Your task to perform on an android device: make emails show in primary in the gmail app Image 0: 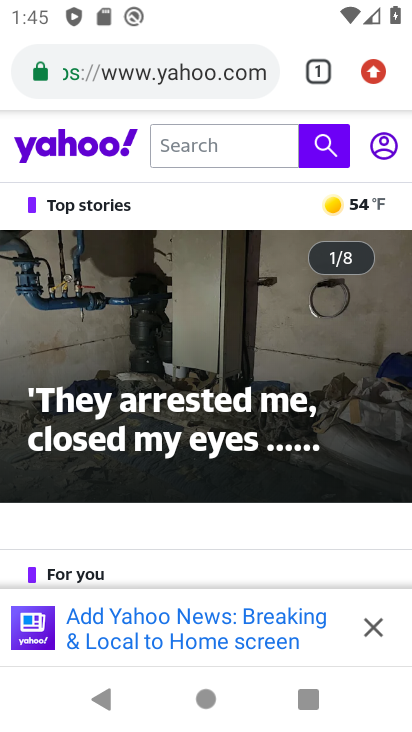
Step 0: press home button
Your task to perform on an android device: make emails show in primary in the gmail app Image 1: 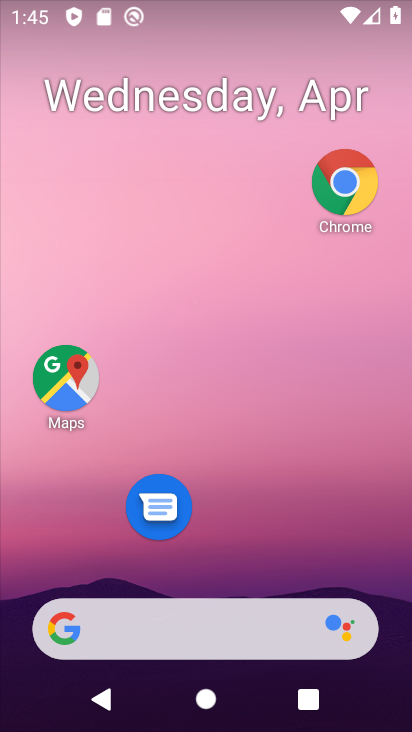
Step 1: drag from (252, 701) to (170, 38)
Your task to perform on an android device: make emails show in primary in the gmail app Image 2: 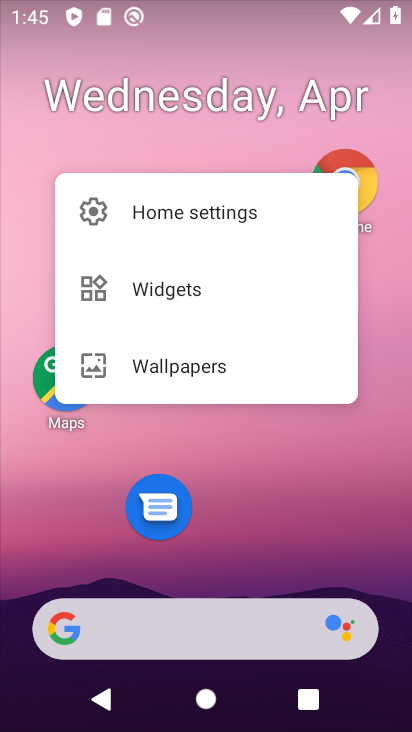
Step 2: drag from (256, 694) to (233, 8)
Your task to perform on an android device: make emails show in primary in the gmail app Image 3: 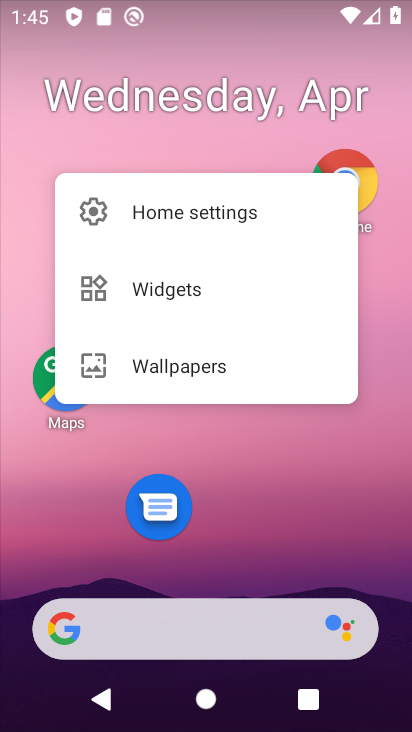
Step 3: drag from (265, 704) to (183, 61)
Your task to perform on an android device: make emails show in primary in the gmail app Image 4: 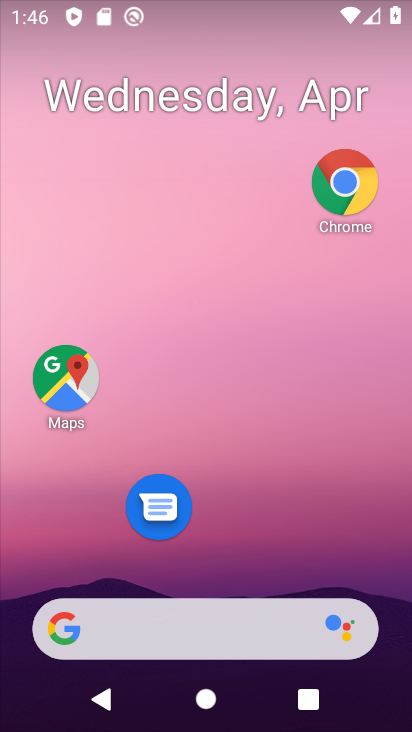
Step 4: drag from (230, 657) to (248, 0)
Your task to perform on an android device: make emails show in primary in the gmail app Image 5: 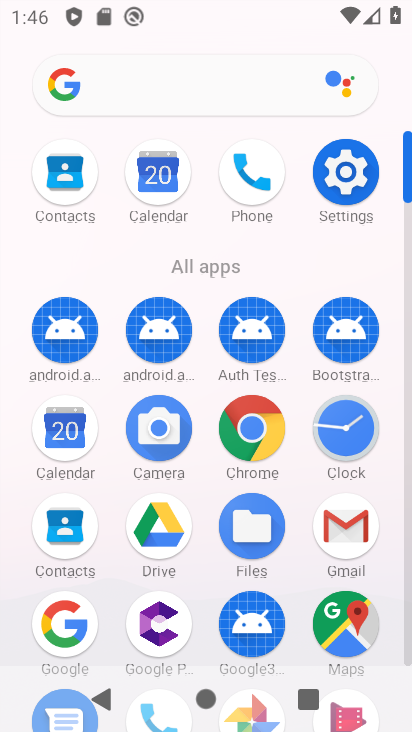
Step 5: click (327, 519)
Your task to perform on an android device: make emails show in primary in the gmail app Image 6: 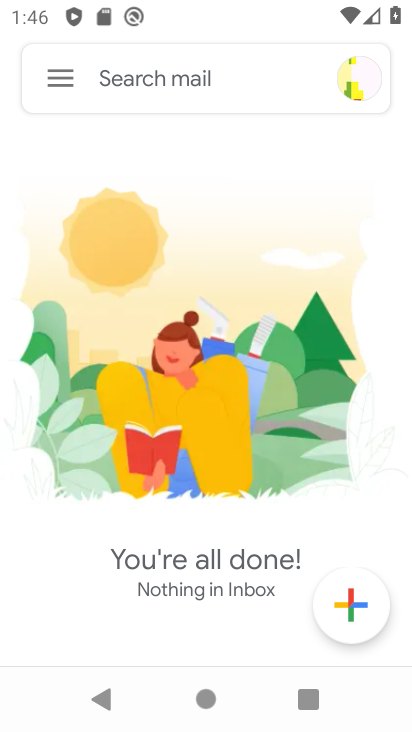
Step 6: click (48, 63)
Your task to perform on an android device: make emails show in primary in the gmail app Image 7: 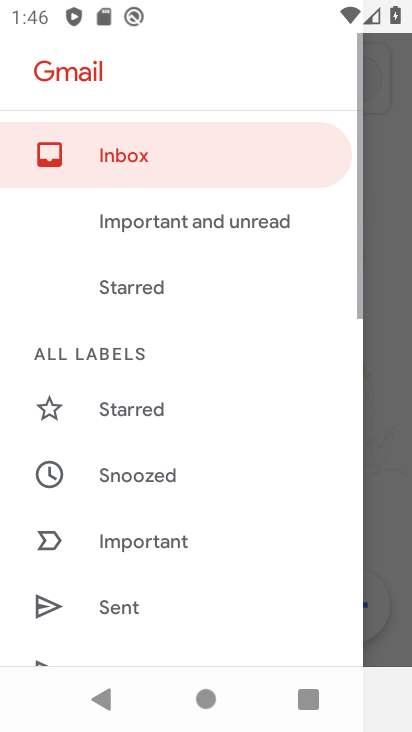
Step 7: drag from (225, 547) to (275, 10)
Your task to perform on an android device: make emails show in primary in the gmail app Image 8: 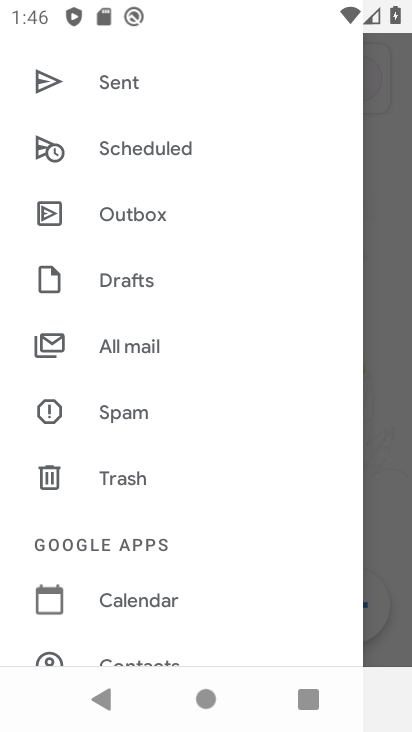
Step 8: drag from (261, 625) to (232, 12)
Your task to perform on an android device: make emails show in primary in the gmail app Image 9: 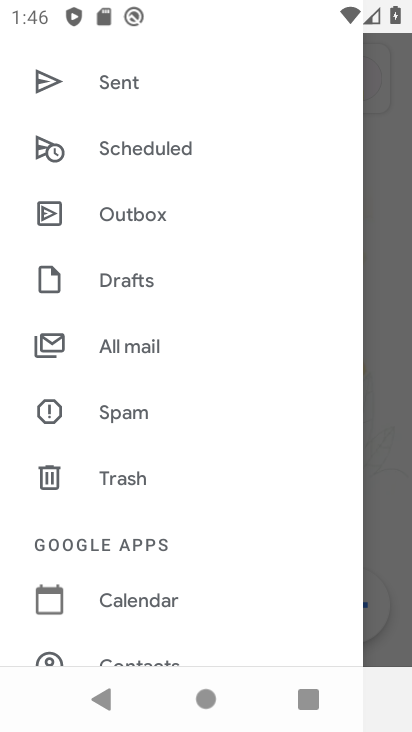
Step 9: drag from (179, 608) to (164, 7)
Your task to perform on an android device: make emails show in primary in the gmail app Image 10: 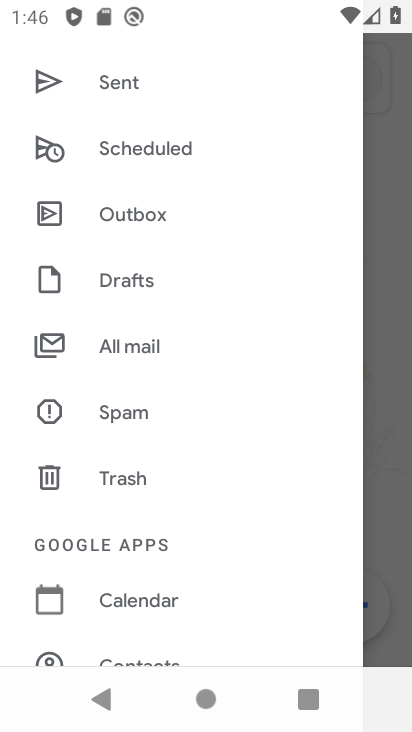
Step 10: drag from (255, 564) to (179, 14)
Your task to perform on an android device: make emails show in primary in the gmail app Image 11: 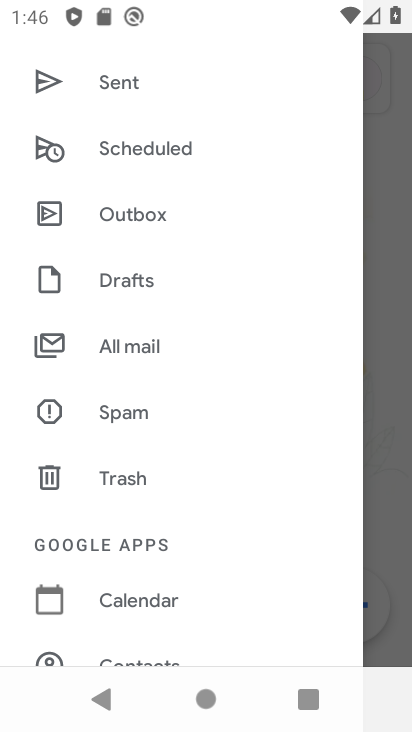
Step 11: drag from (261, 546) to (178, 1)
Your task to perform on an android device: make emails show in primary in the gmail app Image 12: 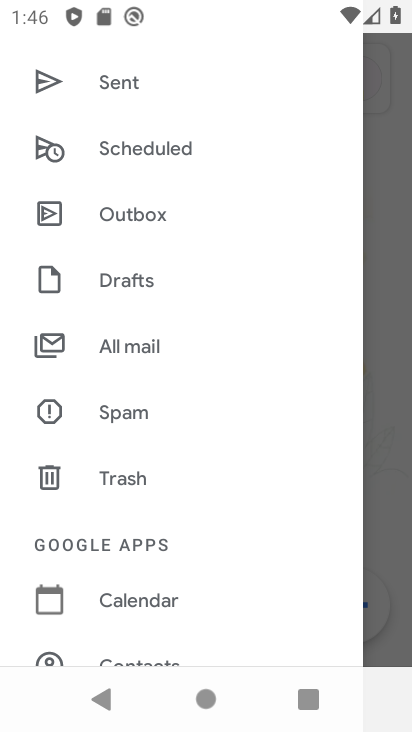
Step 12: drag from (215, 518) to (183, 16)
Your task to perform on an android device: make emails show in primary in the gmail app Image 13: 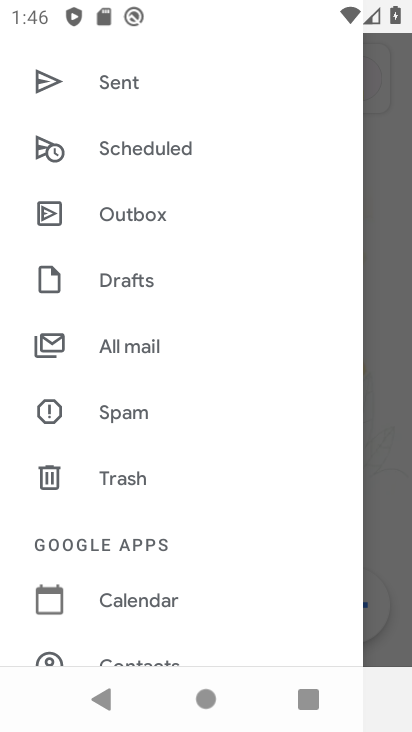
Step 13: drag from (274, 518) to (207, 46)
Your task to perform on an android device: make emails show in primary in the gmail app Image 14: 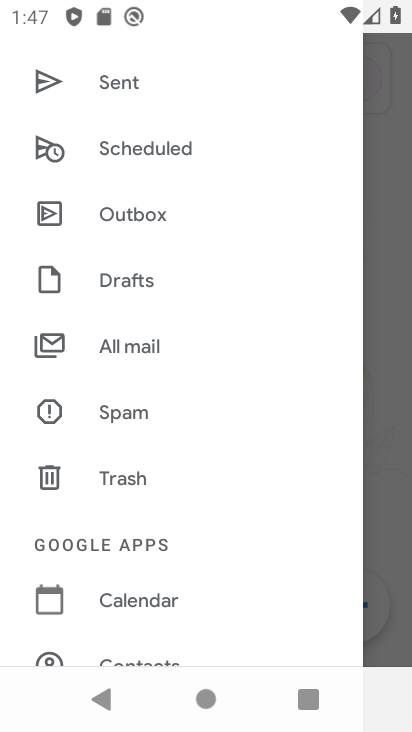
Step 14: drag from (292, 598) to (276, 5)
Your task to perform on an android device: make emails show in primary in the gmail app Image 15: 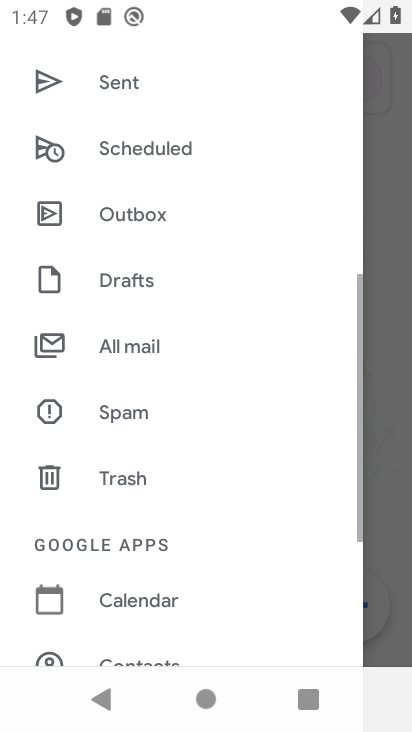
Step 15: drag from (249, 638) to (255, 99)
Your task to perform on an android device: make emails show in primary in the gmail app Image 16: 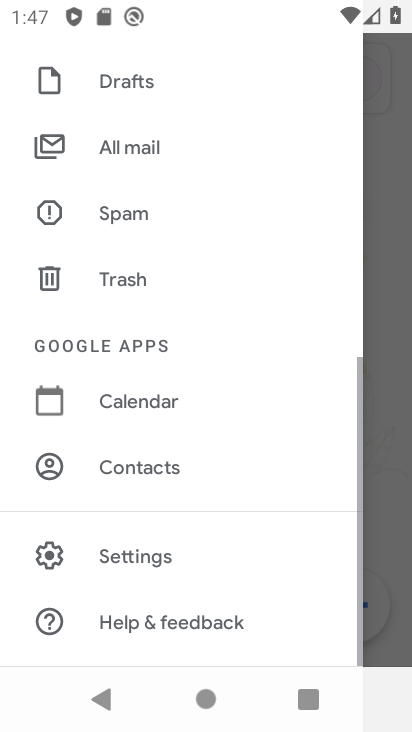
Step 16: click (204, 563)
Your task to perform on an android device: make emails show in primary in the gmail app Image 17: 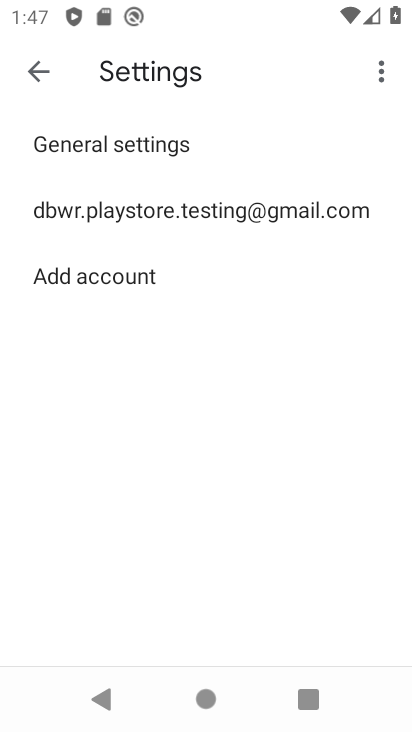
Step 17: click (167, 217)
Your task to perform on an android device: make emails show in primary in the gmail app Image 18: 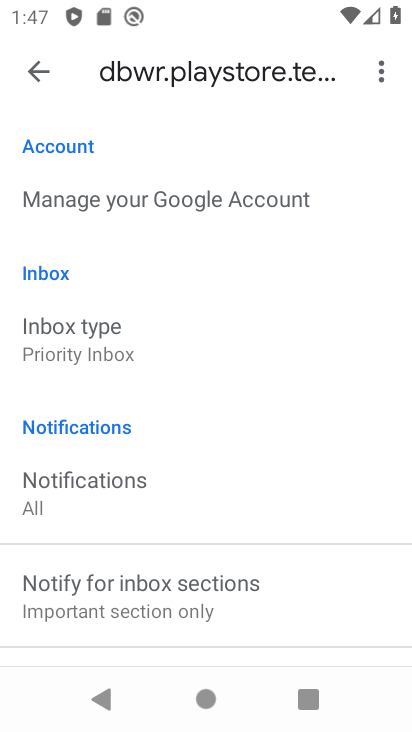
Step 18: click (106, 352)
Your task to perform on an android device: make emails show in primary in the gmail app Image 19: 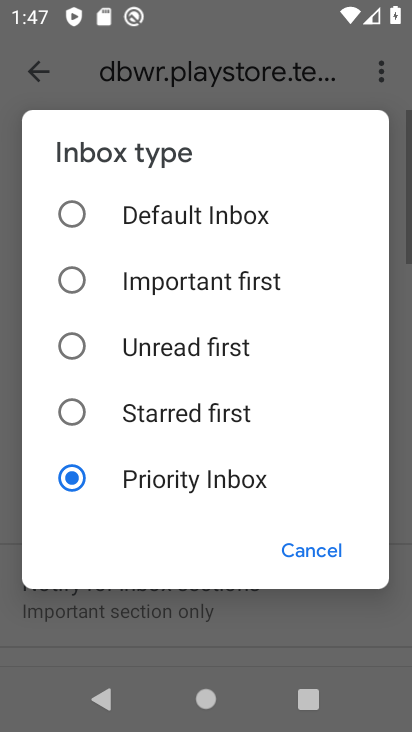
Step 19: click (190, 218)
Your task to perform on an android device: make emails show in primary in the gmail app Image 20: 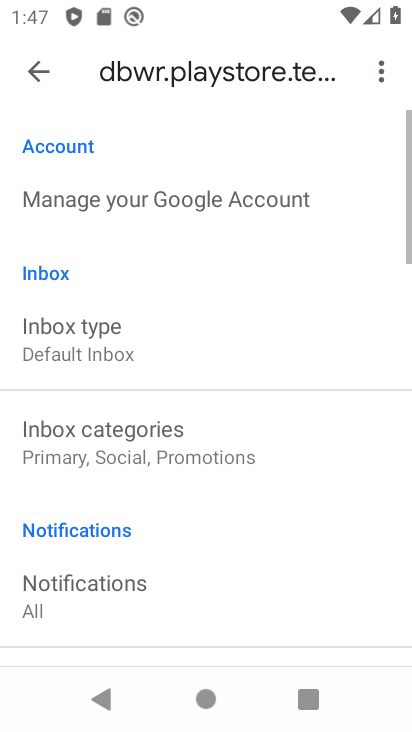
Step 20: click (227, 458)
Your task to perform on an android device: make emails show in primary in the gmail app Image 21: 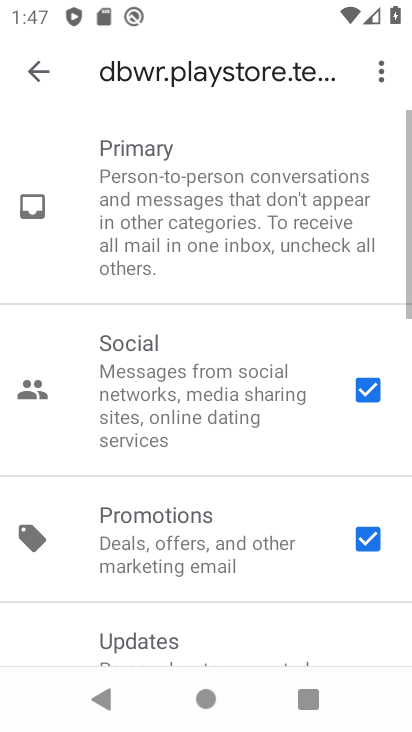
Step 21: click (362, 390)
Your task to perform on an android device: make emails show in primary in the gmail app Image 22: 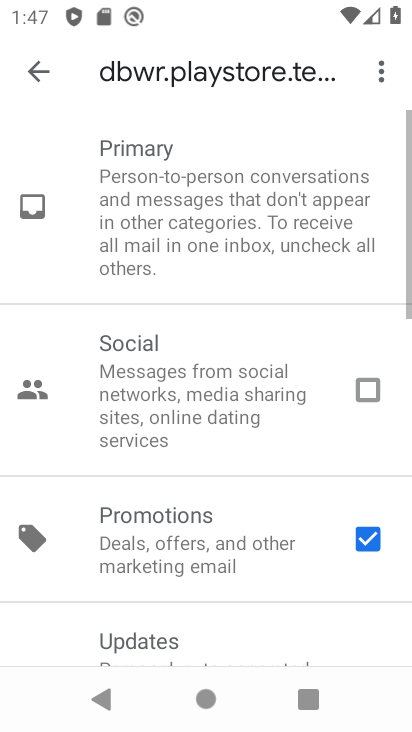
Step 22: click (368, 538)
Your task to perform on an android device: make emails show in primary in the gmail app Image 23: 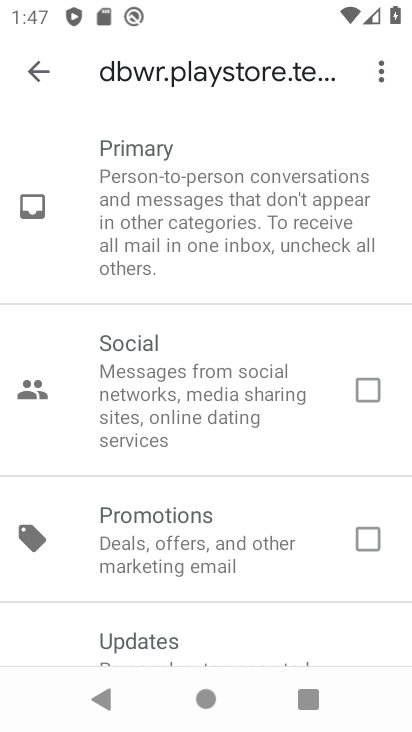
Step 23: task complete